Your task to perform on an android device: change the clock display to digital Image 0: 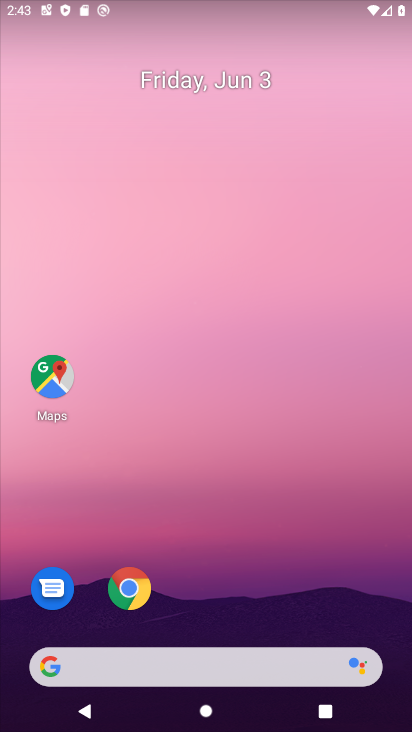
Step 0: click (249, 199)
Your task to perform on an android device: change the clock display to digital Image 1: 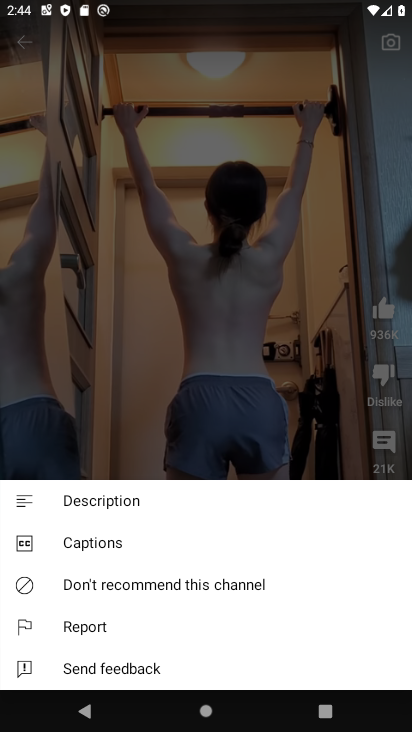
Step 1: press home button
Your task to perform on an android device: change the clock display to digital Image 2: 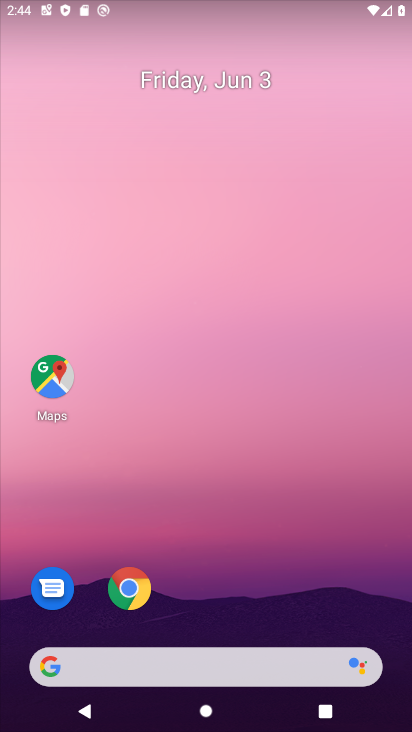
Step 2: click (245, 97)
Your task to perform on an android device: change the clock display to digital Image 3: 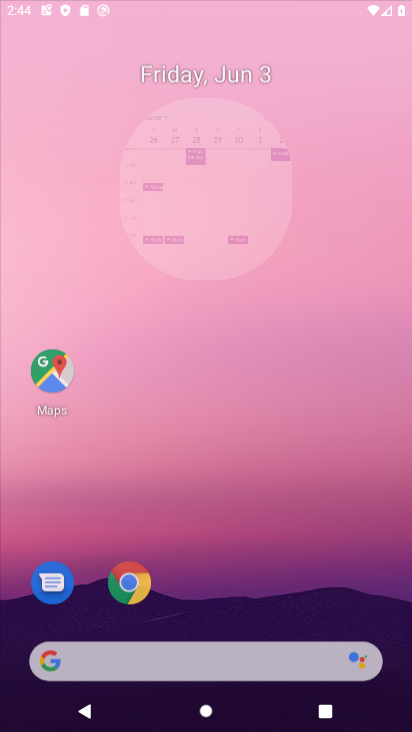
Step 3: drag from (217, 612) to (255, 58)
Your task to perform on an android device: change the clock display to digital Image 4: 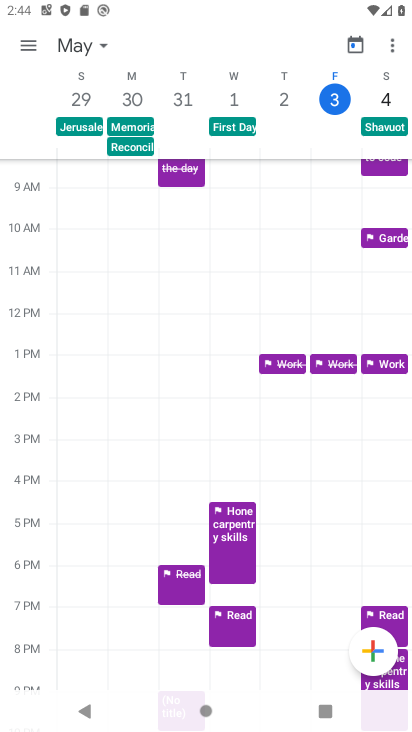
Step 4: press home button
Your task to perform on an android device: change the clock display to digital Image 5: 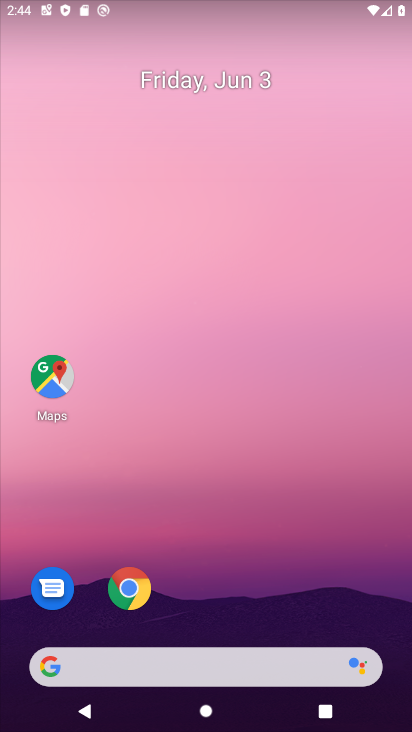
Step 5: drag from (186, 585) to (307, 1)
Your task to perform on an android device: change the clock display to digital Image 6: 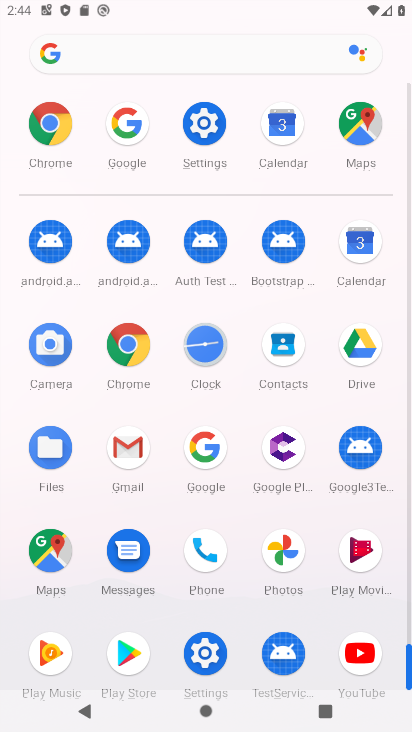
Step 6: click (211, 348)
Your task to perform on an android device: change the clock display to digital Image 7: 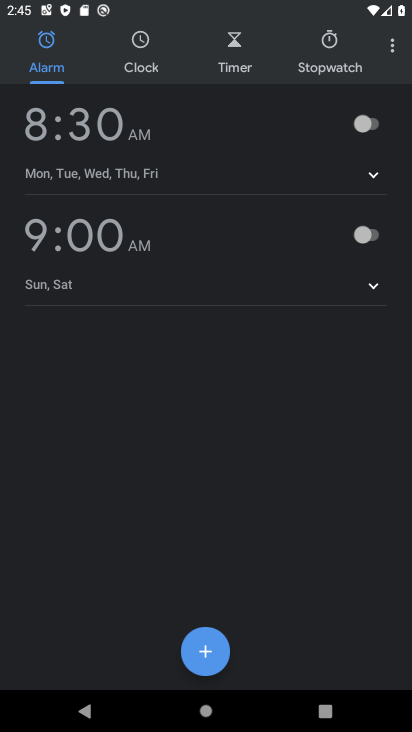
Step 7: click (386, 50)
Your task to perform on an android device: change the clock display to digital Image 8: 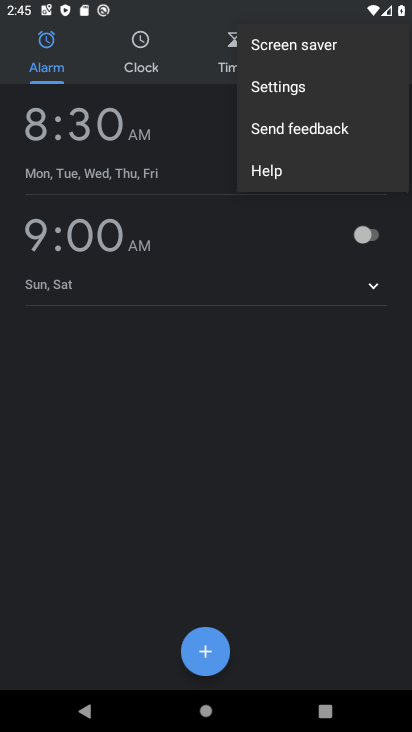
Step 8: click (288, 84)
Your task to perform on an android device: change the clock display to digital Image 9: 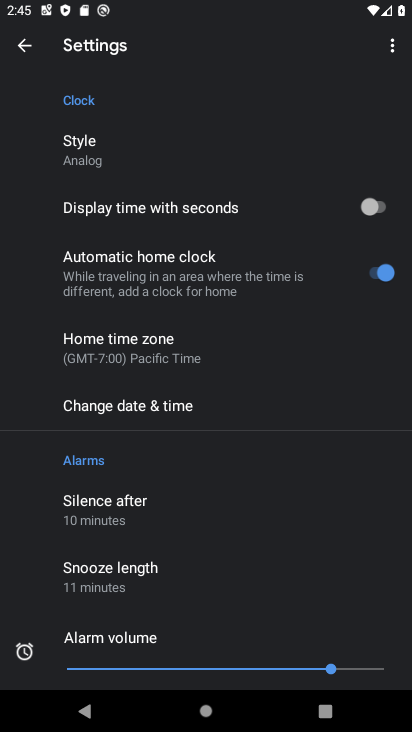
Step 9: click (141, 150)
Your task to perform on an android device: change the clock display to digital Image 10: 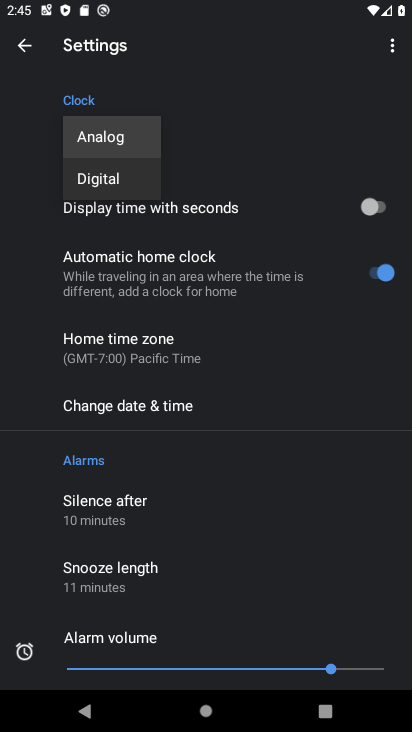
Step 10: click (135, 177)
Your task to perform on an android device: change the clock display to digital Image 11: 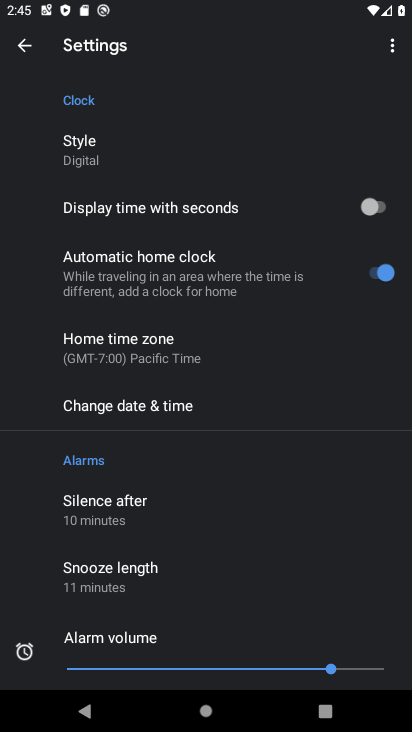
Step 11: task complete